Your task to perform on an android device: See recent photos Image 0: 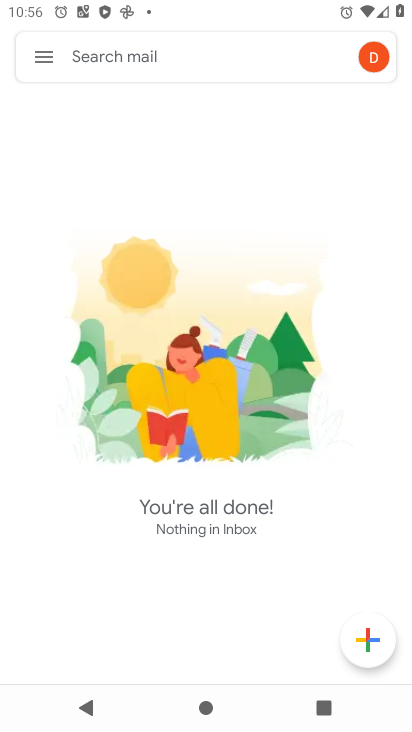
Step 0: press home button
Your task to perform on an android device: See recent photos Image 1: 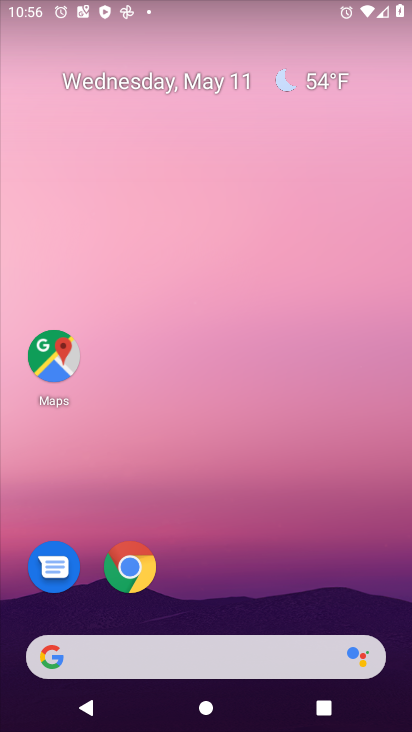
Step 1: drag from (230, 584) to (301, 3)
Your task to perform on an android device: See recent photos Image 2: 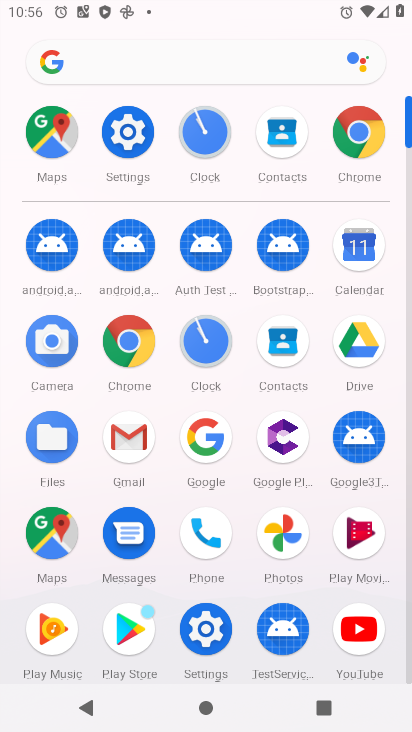
Step 2: click (292, 542)
Your task to perform on an android device: See recent photos Image 3: 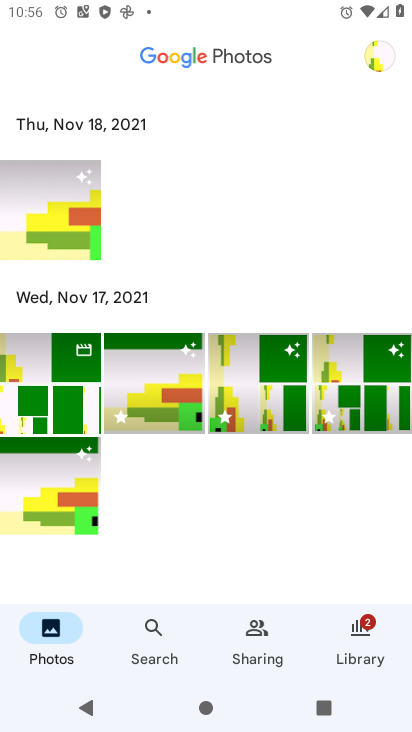
Step 3: task complete